Your task to perform on an android device: Open calendar and show me the second week of next month Image 0: 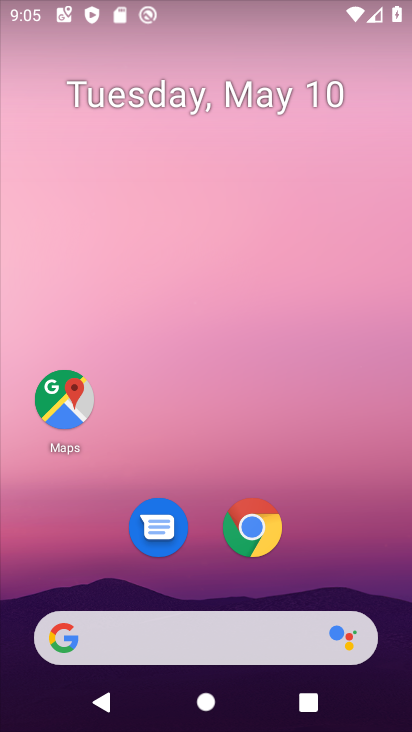
Step 0: drag from (302, 595) to (317, 324)
Your task to perform on an android device: Open calendar and show me the second week of next month Image 1: 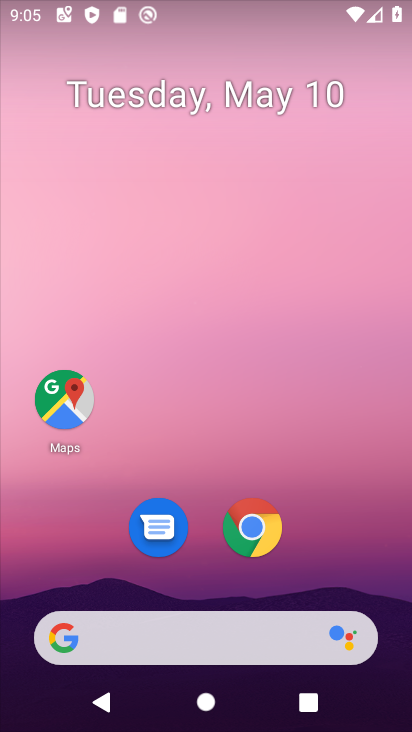
Step 1: drag from (312, 575) to (293, 215)
Your task to perform on an android device: Open calendar and show me the second week of next month Image 2: 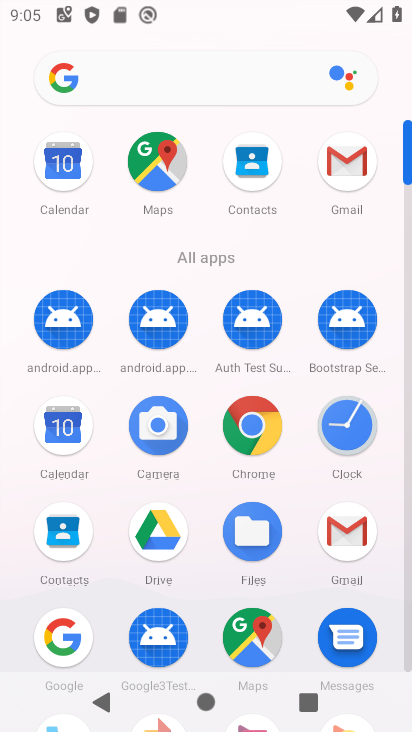
Step 2: drag from (292, 622) to (301, 315)
Your task to perform on an android device: Open calendar and show me the second week of next month Image 3: 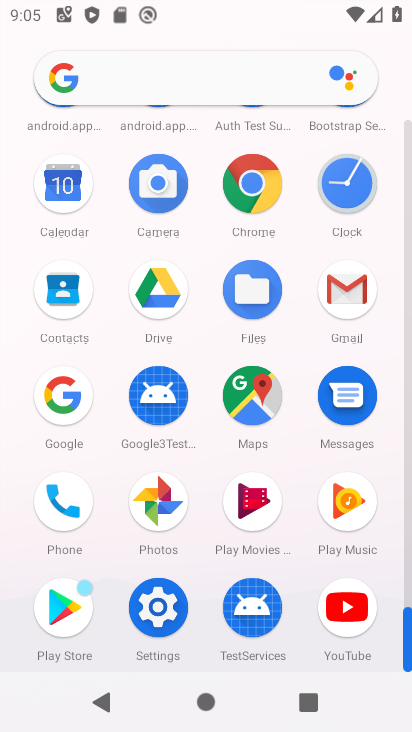
Step 3: drag from (309, 249) to (249, 575)
Your task to perform on an android device: Open calendar and show me the second week of next month Image 4: 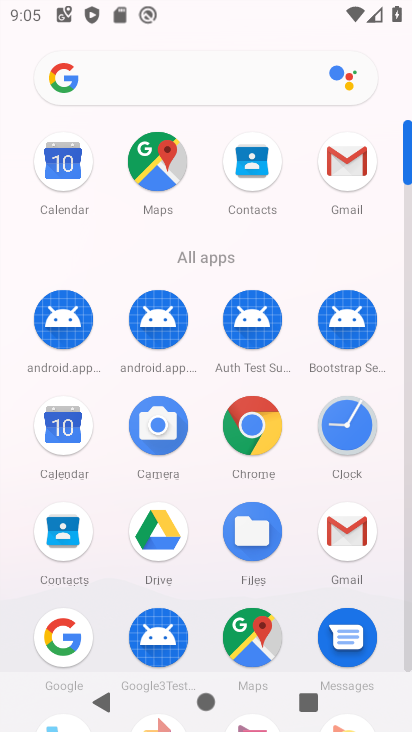
Step 4: drag from (293, 598) to (298, 411)
Your task to perform on an android device: Open calendar and show me the second week of next month Image 5: 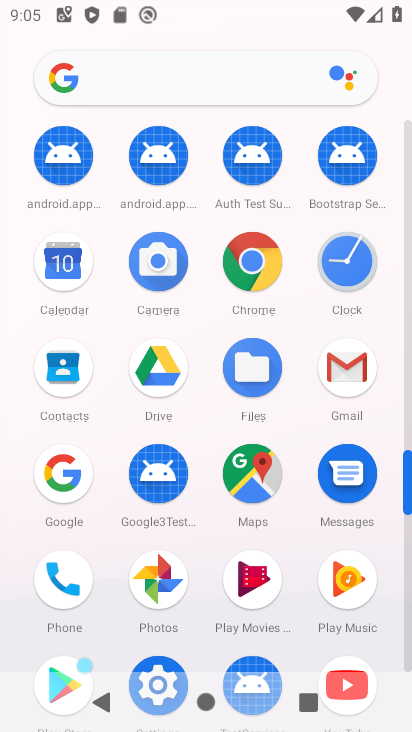
Step 5: drag from (296, 571) to (296, 378)
Your task to perform on an android device: Open calendar and show me the second week of next month Image 6: 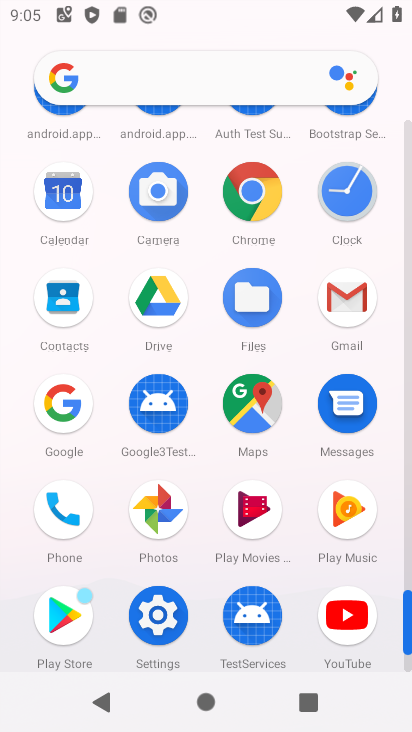
Step 6: drag from (306, 319) to (256, 517)
Your task to perform on an android device: Open calendar and show me the second week of next month Image 7: 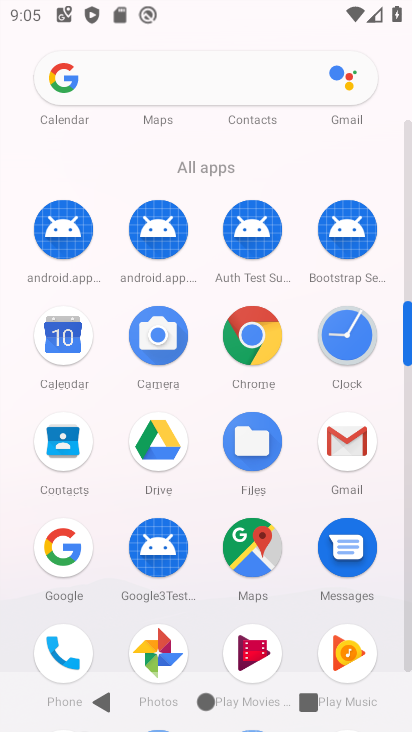
Step 7: drag from (286, 389) to (253, 607)
Your task to perform on an android device: Open calendar and show me the second week of next month Image 8: 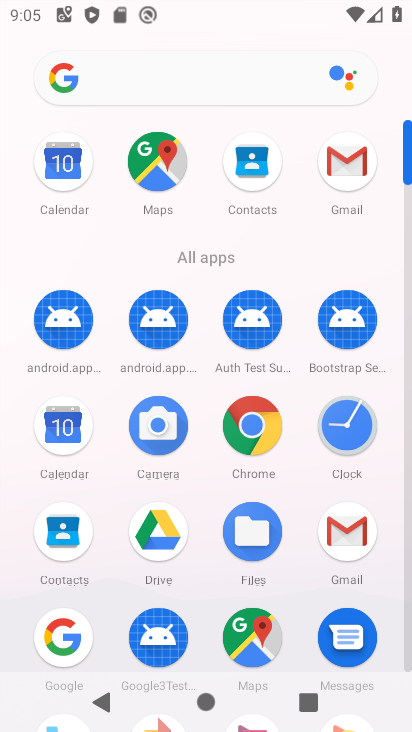
Step 8: drag from (278, 554) to (299, 336)
Your task to perform on an android device: Open calendar and show me the second week of next month Image 9: 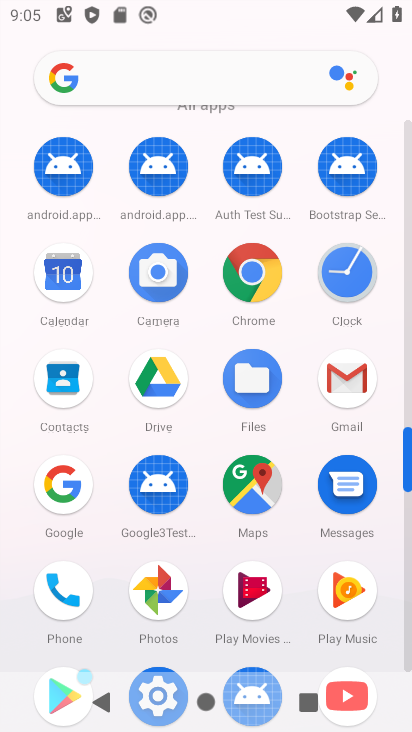
Step 9: drag from (296, 534) to (326, 330)
Your task to perform on an android device: Open calendar and show me the second week of next month Image 10: 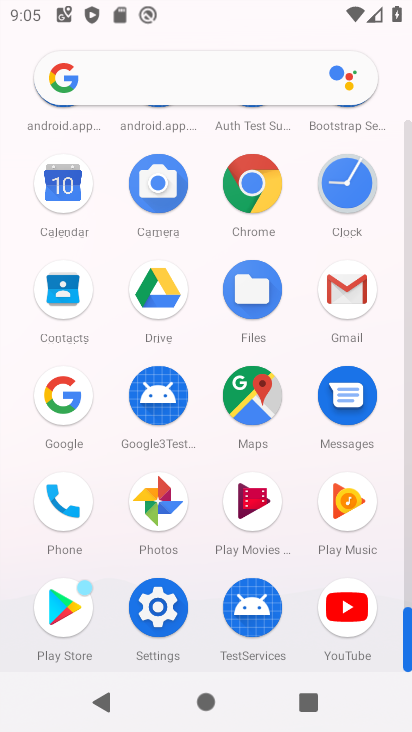
Step 10: drag from (301, 283) to (258, 533)
Your task to perform on an android device: Open calendar and show me the second week of next month Image 11: 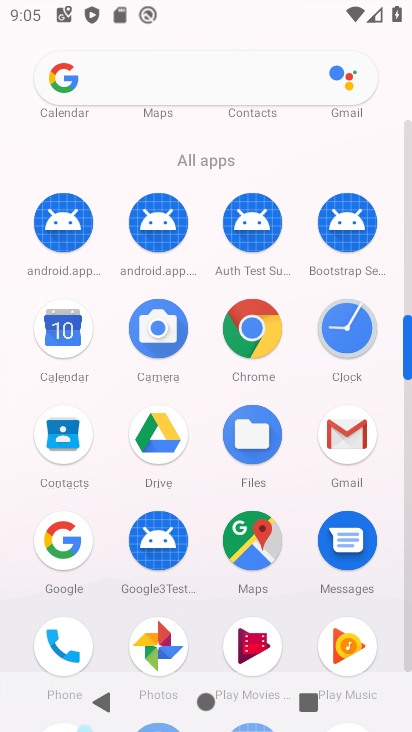
Step 11: drag from (277, 322) to (258, 569)
Your task to perform on an android device: Open calendar and show me the second week of next month Image 12: 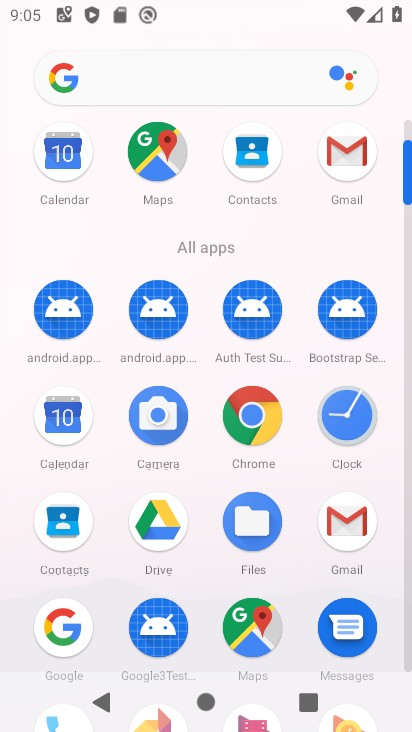
Step 12: drag from (294, 594) to (312, 382)
Your task to perform on an android device: Open calendar and show me the second week of next month Image 13: 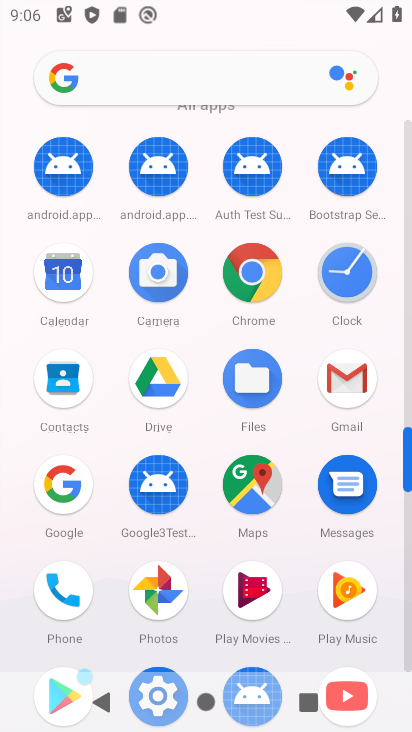
Step 13: drag from (303, 644) to (310, 460)
Your task to perform on an android device: Open calendar and show me the second week of next month Image 14: 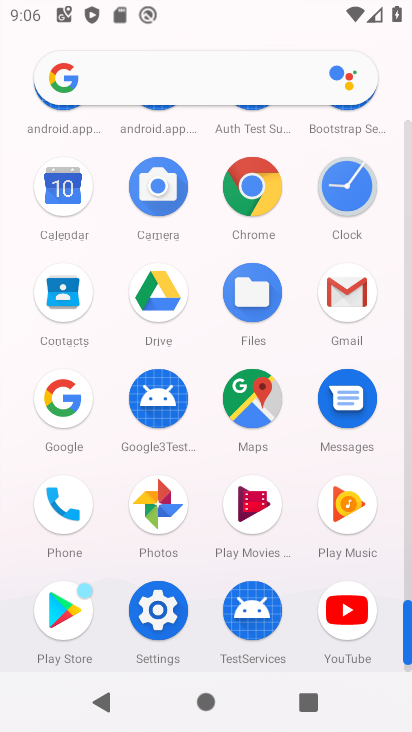
Step 14: click (61, 217)
Your task to perform on an android device: Open calendar and show me the second week of next month Image 15: 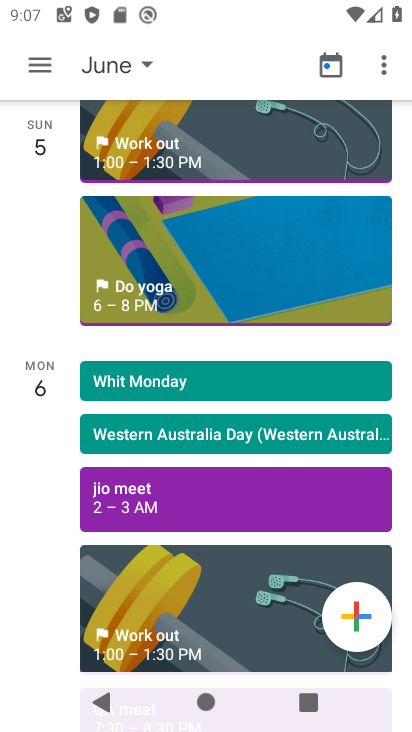
Step 15: click (51, 72)
Your task to perform on an android device: Open calendar and show me the second week of next month Image 16: 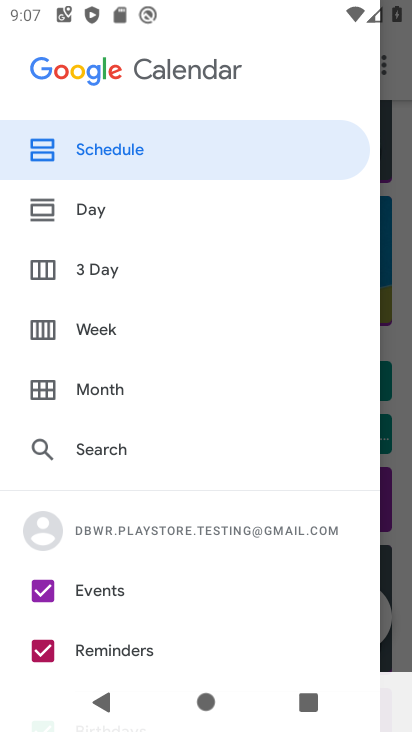
Step 16: click (96, 319)
Your task to perform on an android device: Open calendar and show me the second week of next month Image 17: 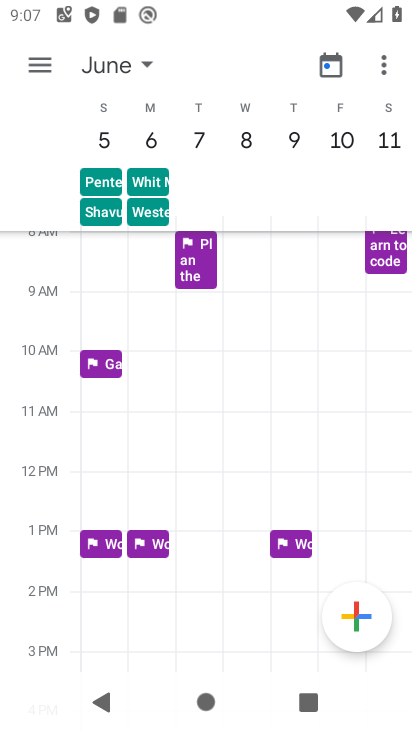
Step 17: click (133, 74)
Your task to perform on an android device: Open calendar and show me the second week of next month Image 18: 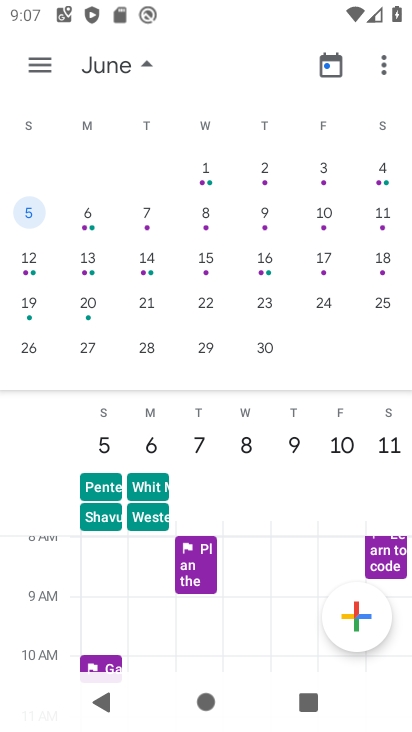
Step 18: click (34, 265)
Your task to perform on an android device: Open calendar and show me the second week of next month Image 19: 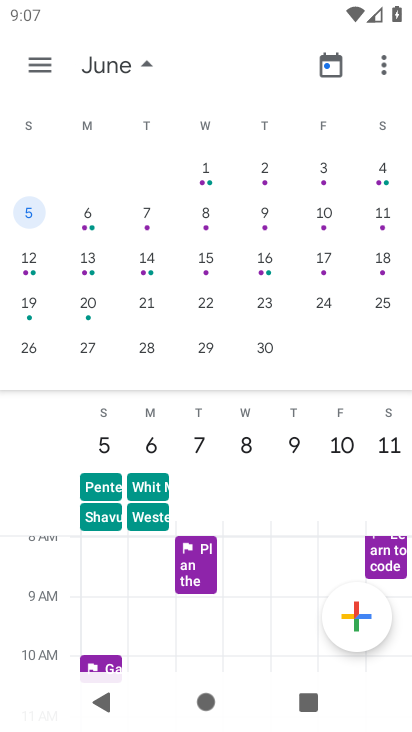
Step 19: click (32, 260)
Your task to perform on an android device: Open calendar and show me the second week of next month Image 20: 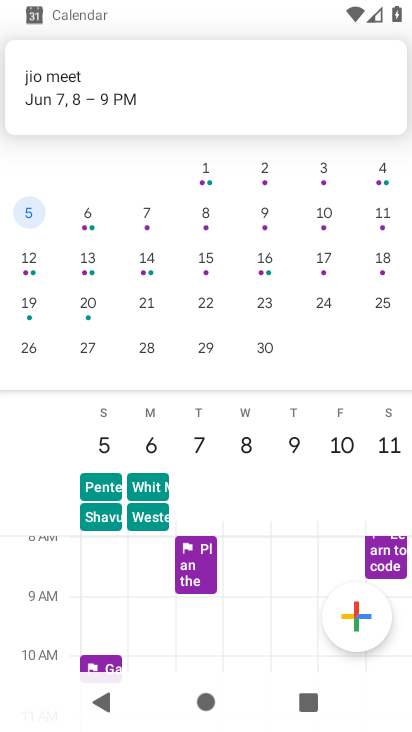
Step 20: click (32, 257)
Your task to perform on an android device: Open calendar and show me the second week of next month Image 21: 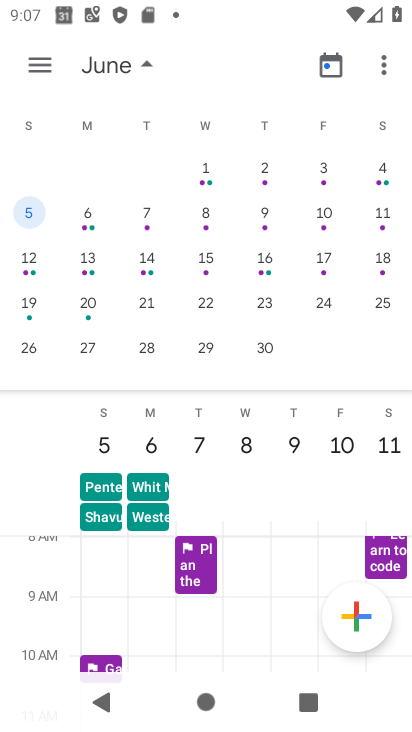
Step 21: click (36, 258)
Your task to perform on an android device: Open calendar and show me the second week of next month Image 22: 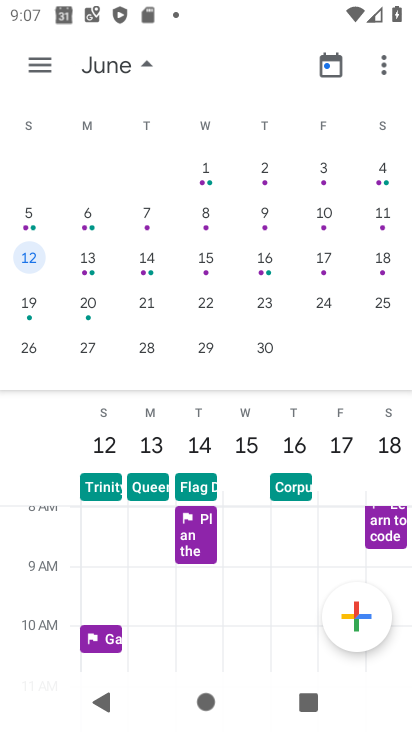
Step 22: task complete